Your task to perform on an android device: Open the calendar app, open the side menu, and click the "Day" option Image 0: 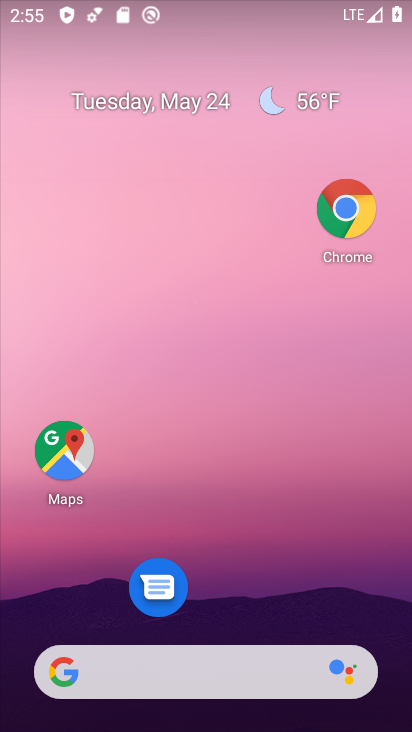
Step 0: drag from (200, 605) to (262, 171)
Your task to perform on an android device: Open the calendar app, open the side menu, and click the "Day" option Image 1: 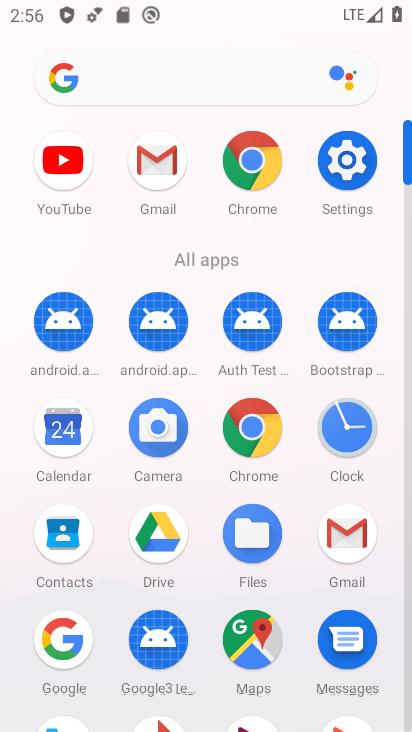
Step 1: click (59, 442)
Your task to perform on an android device: Open the calendar app, open the side menu, and click the "Day" option Image 2: 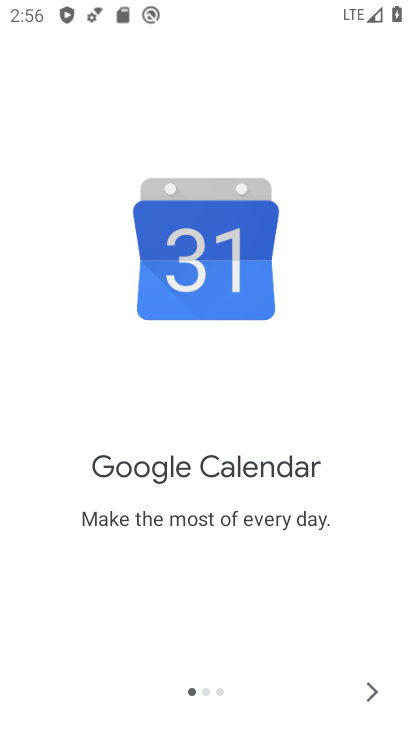
Step 2: click (381, 681)
Your task to perform on an android device: Open the calendar app, open the side menu, and click the "Day" option Image 3: 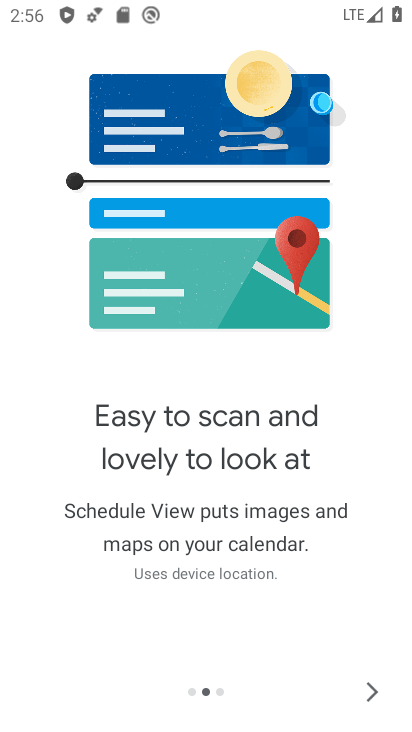
Step 3: click (378, 684)
Your task to perform on an android device: Open the calendar app, open the side menu, and click the "Day" option Image 4: 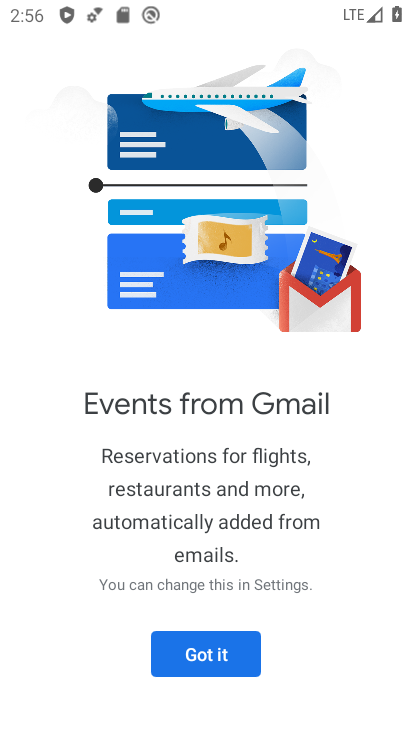
Step 4: click (190, 655)
Your task to perform on an android device: Open the calendar app, open the side menu, and click the "Day" option Image 5: 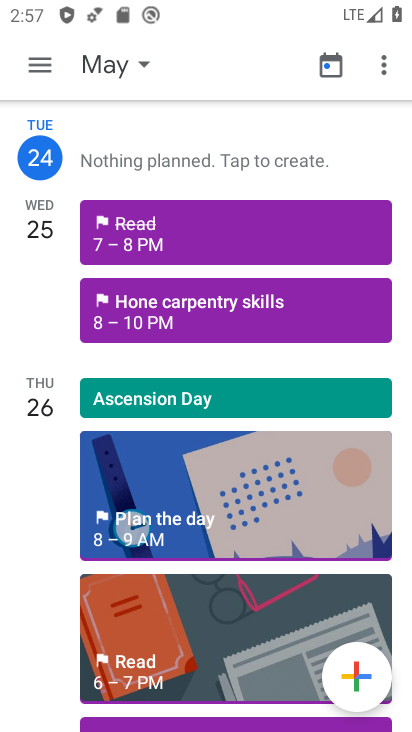
Step 5: click (51, 56)
Your task to perform on an android device: Open the calendar app, open the side menu, and click the "Day" option Image 6: 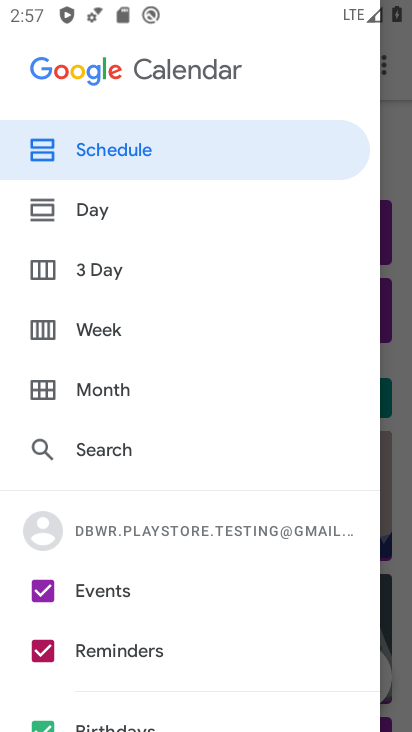
Step 6: click (104, 216)
Your task to perform on an android device: Open the calendar app, open the side menu, and click the "Day" option Image 7: 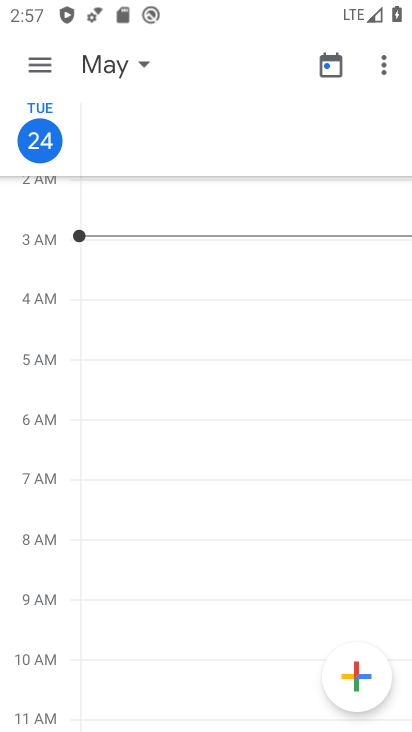
Step 7: task complete